Your task to perform on an android device: Clear all items from cart on walmart. Search for asus zenbook on walmart, select the first entry, add it to the cart, then select checkout. Image 0: 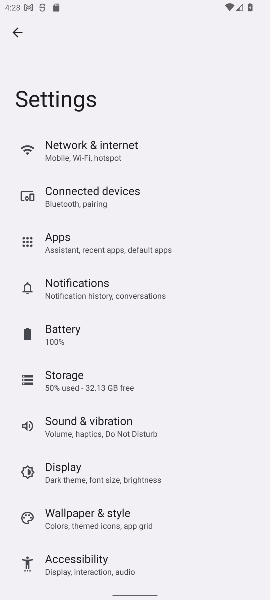
Step 0: press home button
Your task to perform on an android device: Clear all items from cart on walmart. Search for asus zenbook on walmart, select the first entry, add it to the cart, then select checkout. Image 1: 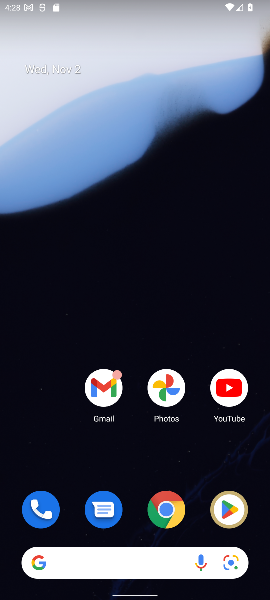
Step 1: click (111, 555)
Your task to perform on an android device: Clear all items from cart on walmart. Search for asus zenbook on walmart, select the first entry, add it to the cart, then select checkout. Image 2: 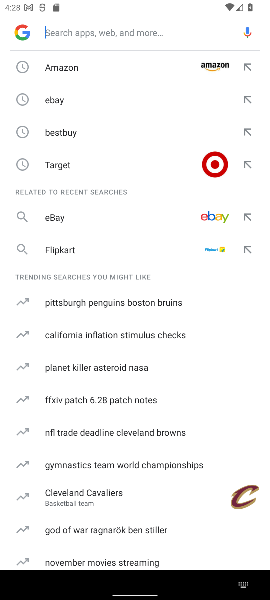
Step 2: type "walmart"
Your task to perform on an android device: Clear all items from cart on walmart. Search for asus zenbook on walmart, select the first entry, add it to the cart, then select checkout. Image 3: 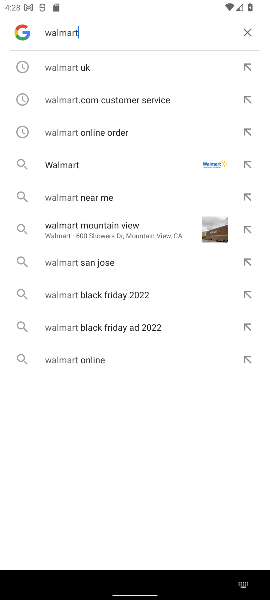
Step 3: click (61, 163)
Your task to perform on an android device: Clear all items from cart on walmart. Search for asus zenbook on walmart, select the first entry, add it to the cart, then select checkout. Image 4: 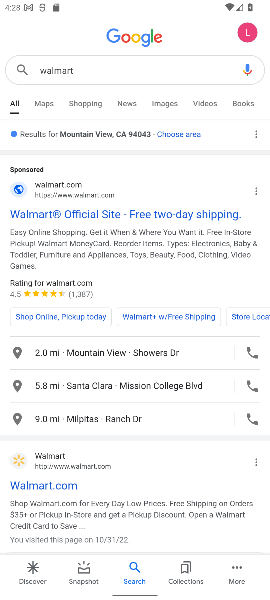
Step 4: click (51, 484)
Your task to perform on an android device: Clear all items from cart on walmart. Search for asus zenbook on walmart, select the first entry, add it to the cart, then select checkout. Image 5: 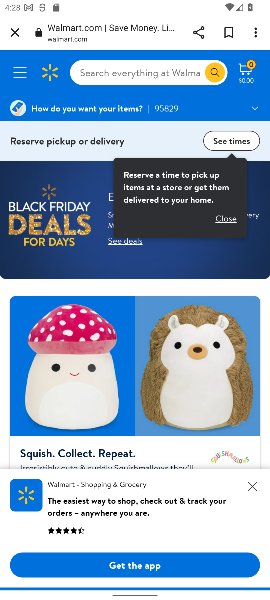
Step 5: click (251, 486)
Your task to perform on an android device: Clear all items from cart on walmart. Search for asus zenbook on walmart, select the first entry, add it to the cart, then select checkout. Image 6: 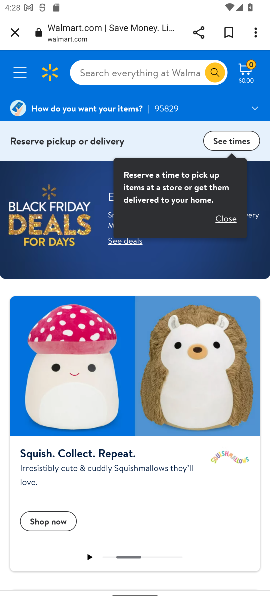
Step 6: click (126, 72)
Your task to perform on an android device: Clear all items from cart on walmart. Search for asus zenbook on walmart, select the first entry, add it to the cart, then select checkout. Image 7: 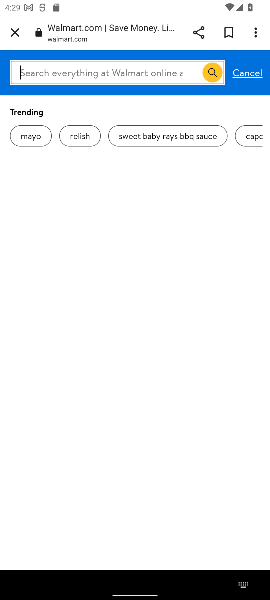
Step 7: click (126, 72)
Your task to perform on an android device: Clear all items from cart on walmart. Search for asus zenbook on walmart, select the first entry, add it to the cart, then select checkout. Image 8: 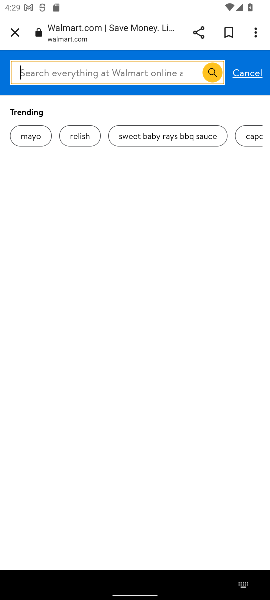
Step 8: click (252, 74)
Your task to perform on an android device: Clear all items from cart on walmart. Search for asus zenbook on walmart, select the first entry, add it to the cart, then select checkout. Image 9: 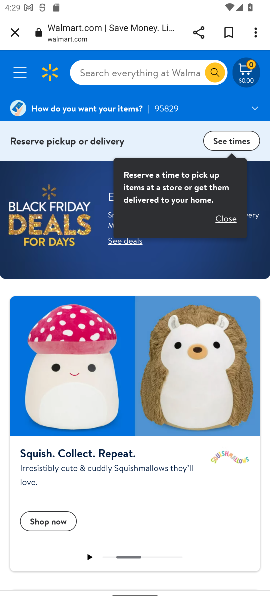
Step 9: click (251, 71)
Your task to perform on an android device: Clear all items from cart on walmart. Search for asus zenbook on walmart, select the first entry, add it to the cart, then select checkout. Image 10: 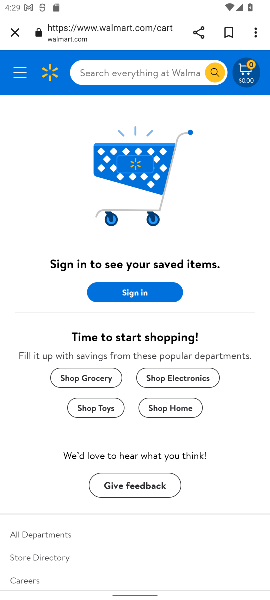
Step 10: click (104, 73)
Your task to perform on an android device: Clear all items from cart on walmart. Search for asus zenbook on walmart, select the first entry, add it to the cart, then select checkout. Image 11: 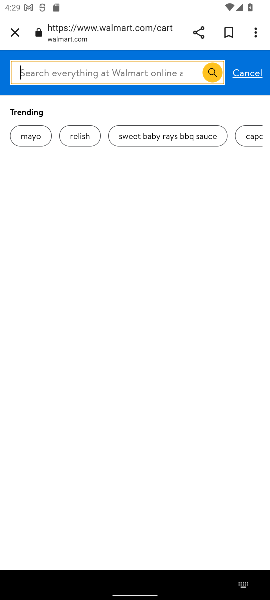
Step 11: type "asus zenbook"
Your task to perform on an android device: Clear all items from cart on walmart. Search for asus zenbook on walmart, select the first entry, add it to the cart, then select checkout. Image 12: 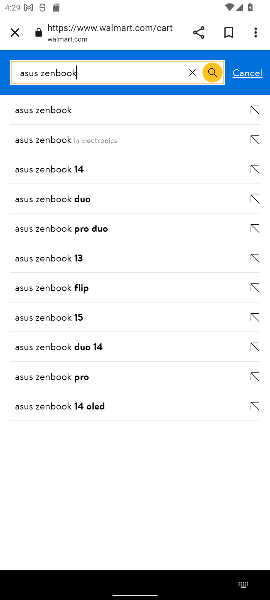
Step 12: click (57, 113)
Your task to perform on an android device: Clear all items from cart on walmart. Search for asus zenbook on walmart, select the first entry, add it to the cart, then select checkout. Image 13: 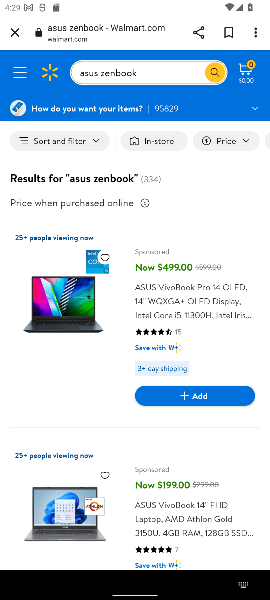
Step 13: click (194, 392)
Your task to perform on an android device: Clear all items from cart on walmart. Search for asus zenbook on walmart, select the first entry, add it to the cart, then select checkout. Image 14: 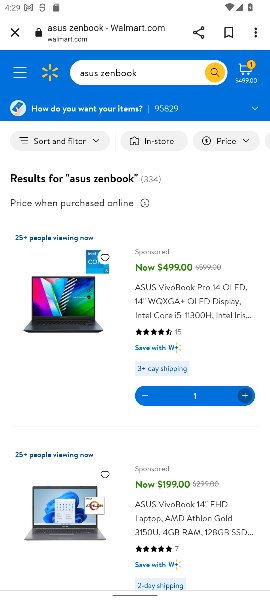
Step 14: click (248, 70)
Your task to perform on an android device: Clear all items from cart on walmart. Search for asus zenbook on walmart, select the first entry, add it to the cart, then select checkout. Image 15: 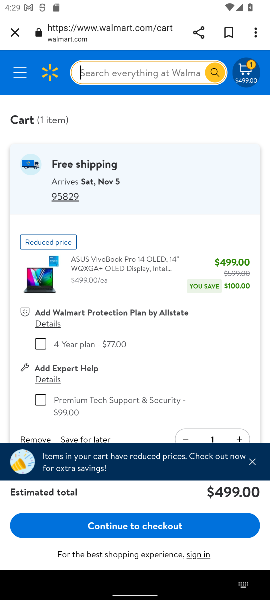
Step 15: click (128, 523)
Your task to perform on an android device: Clear all items from cart on walmart. Search for asus zenbook on walmart, select the first entry, add it to the cart, then select checkout. Image 16: 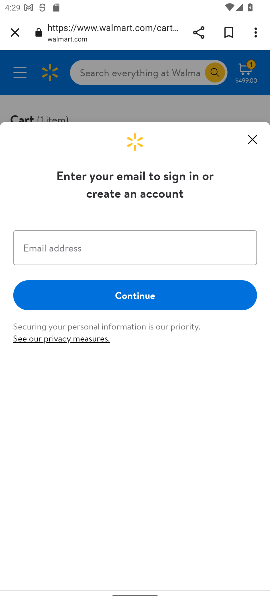
Step 16: task complete